Your task to perform on an android device: remove spam from my inbox in the gmail app Image 0: 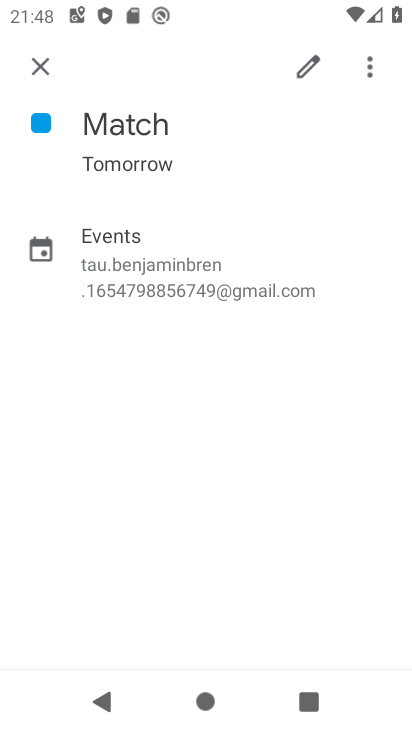
Step 0: press home button
Your task to perform on an android device: remove spam from my inbox in the gmail app Image 1: 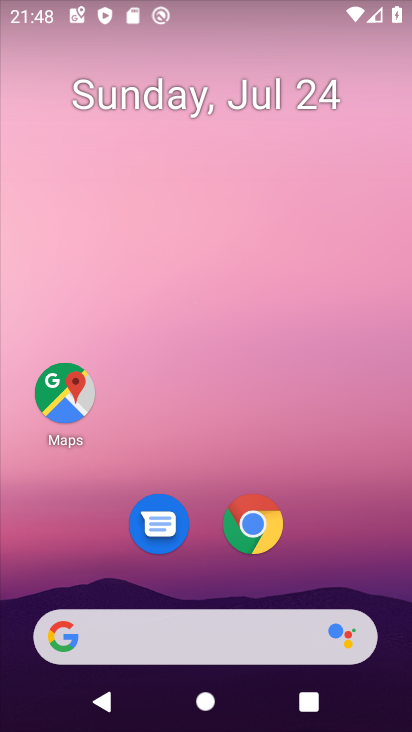
Step 1: drag from (166, 636) to (349, 80)
Your task to perform on an android device: remove spam from my inbox in the gmail app Image 2: 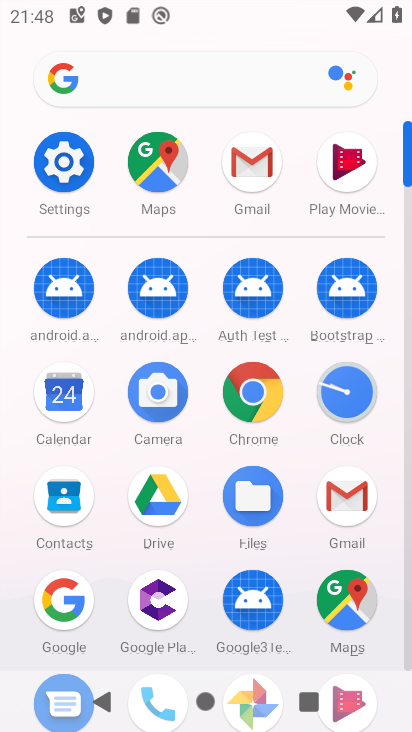
Step 2: click (253, 171)
Your task to perform on an android device: remove spam from my inbox in the gmail app Image 3: 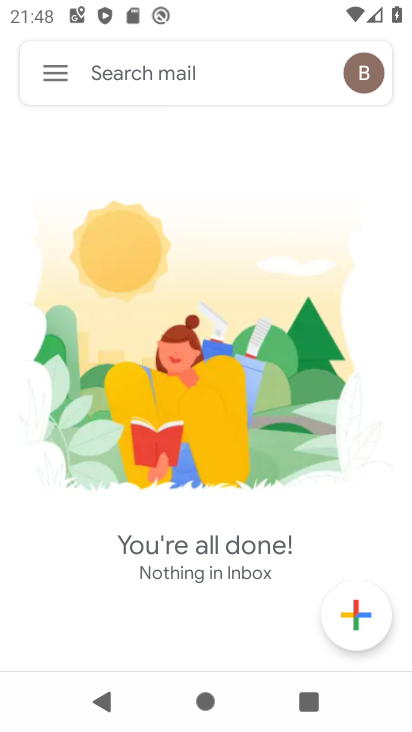
Step 3: click (52, 76)
Your task to perform on an android device: remove spam from my inbox in the gmail app Image 4: 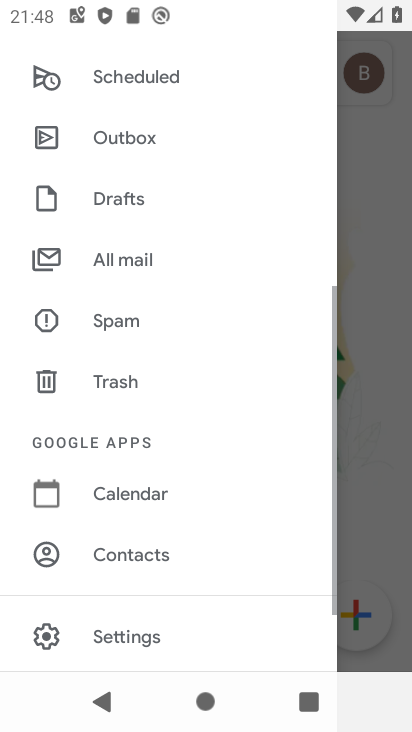
Step 4: click (113, 313)
Your task to perform on an android device: remove spam from my inbox in the gmail app Image 5: 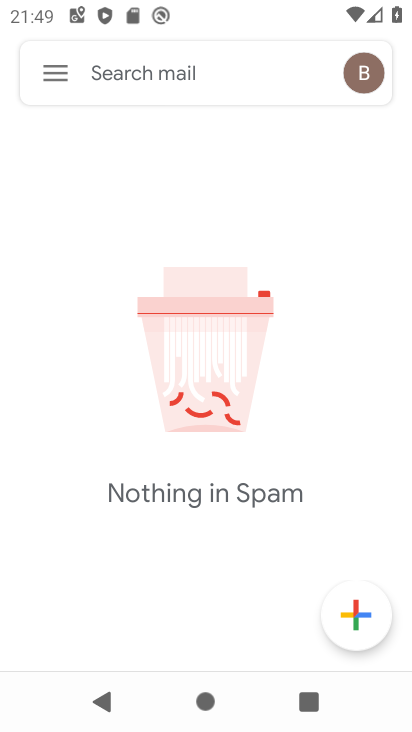
Step 5: task complete